Your task to perform on an android device: toggle pop-ups in chrome Image 0: 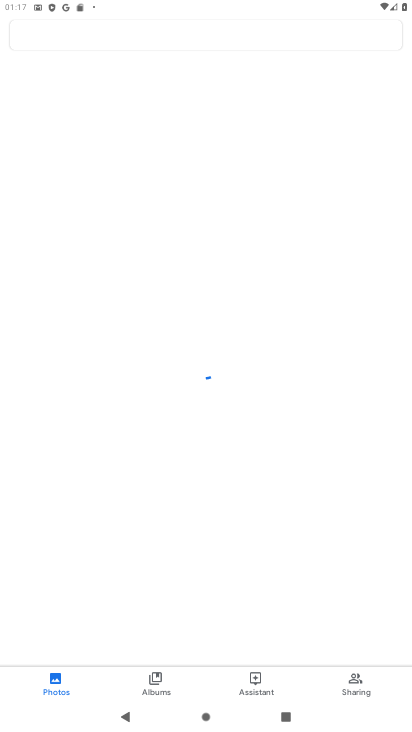
Step 0: press home button
Your task to perform on an android device: toggle pop-ups in chrome Image 1: 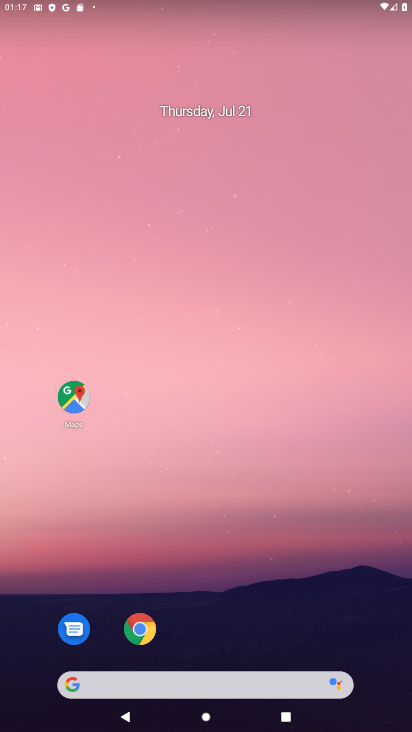
Step 1: click (140, 629)
Your task to perform on an android device: toggle pop-ups in chrome Image 2: 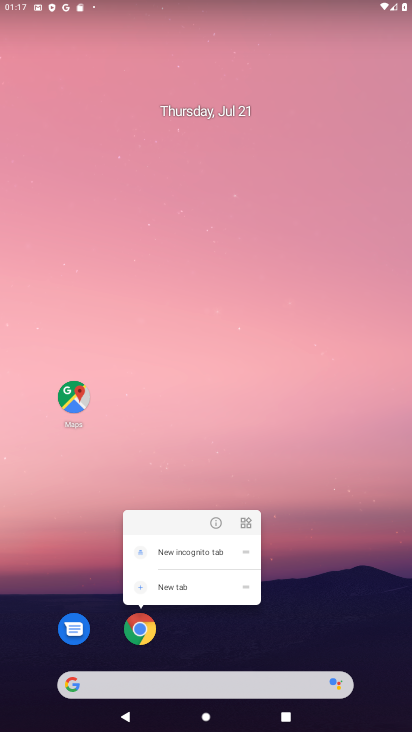
Step 2: click (144, 628)
Your task to perform on an android device: toggle pop-ups in chrome Image 3: 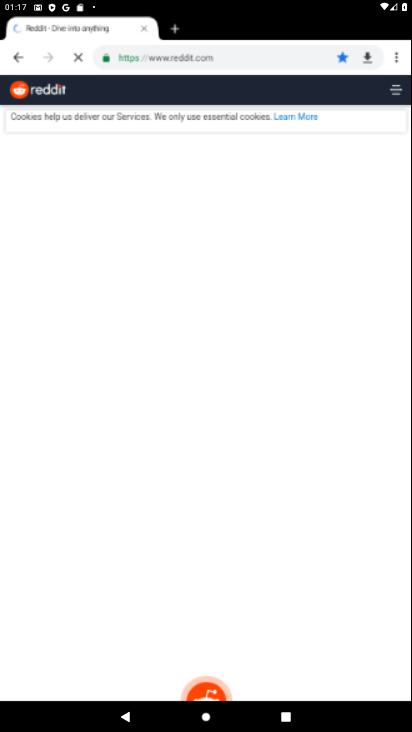
Step 3: click (393, 60)
Your task to perform on an android device: toggle pop-ups in chrome Image 4: 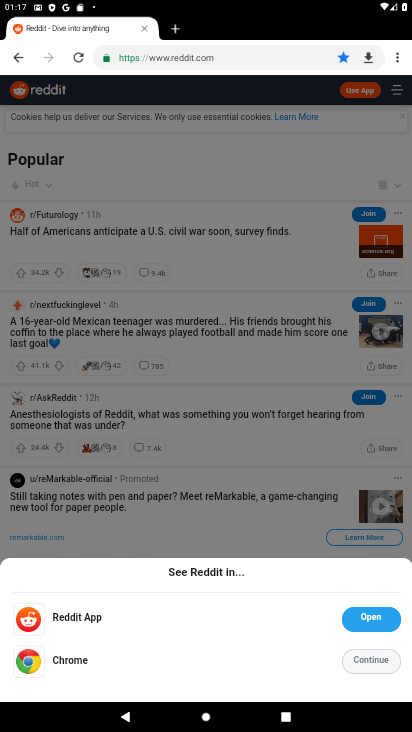
Step 4: click (395, 60)
Your task to perform on an android device: toggle pop-ups in chrome Image 5: 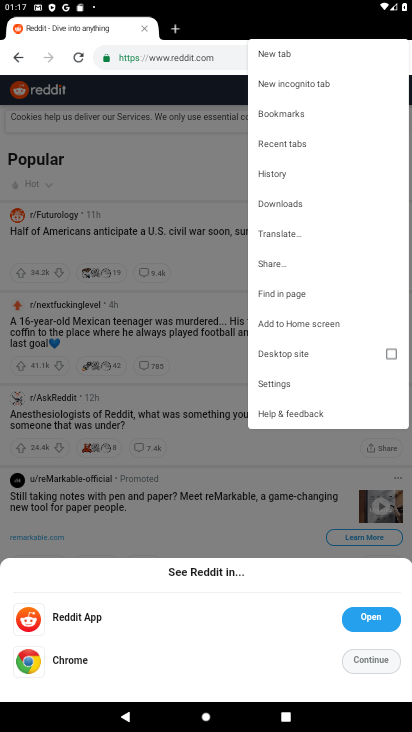
Step 5: click (275, 389)
Your task to perform on an android device: toggle pop-ups in chrome Image 6: 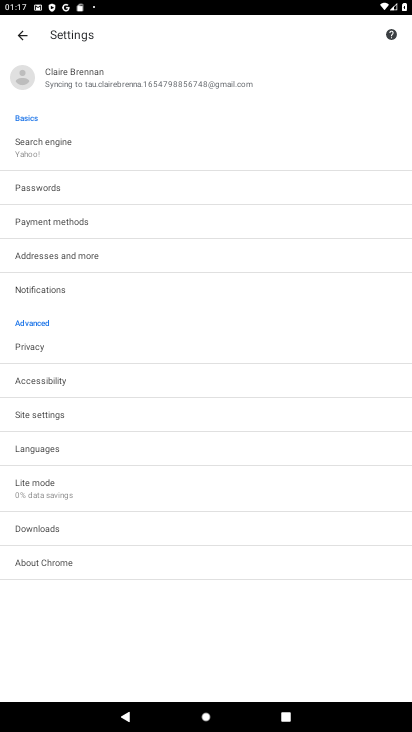
Step 6: click (58, 414)
Your task to perform on an android device: toggle pop-ups in chrome Image 7: 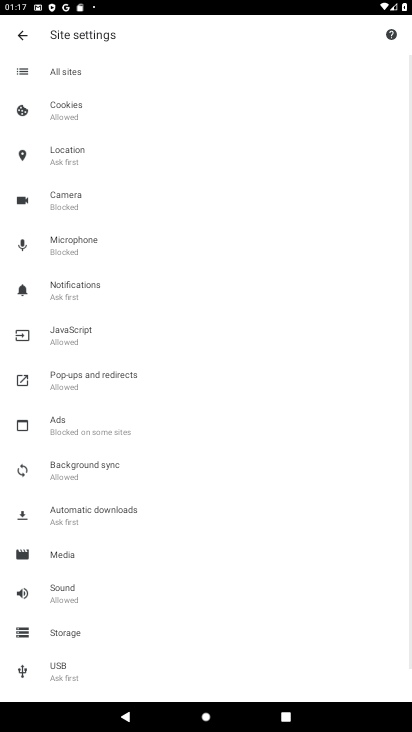
Step 7: click (87, 385)
Your task to perform on an android device: toggle pop-ups in chrome Image 8: 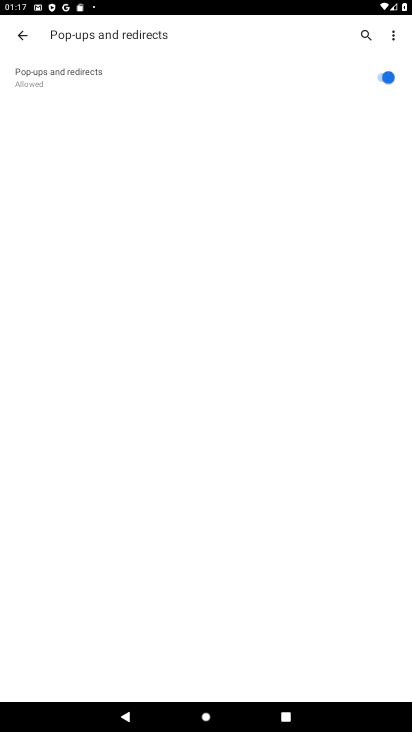
Step 8: click (383, 79)
Your task to perform on an android device: toggle pop-ups in chrome Image 9: 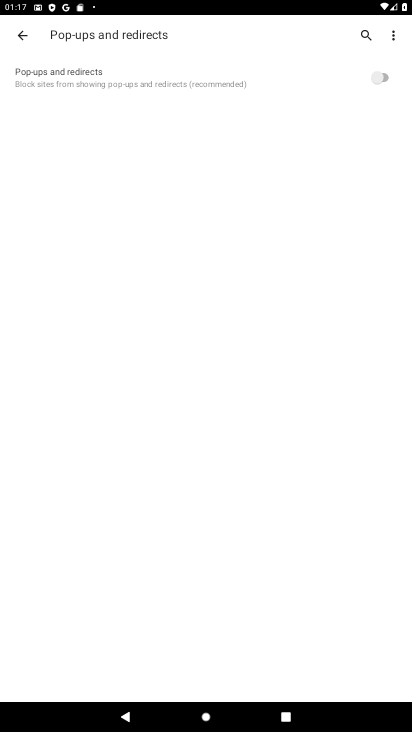
Step 9: task complete